Your task to perform on an android device: turn on improve location accuracy Image 0: 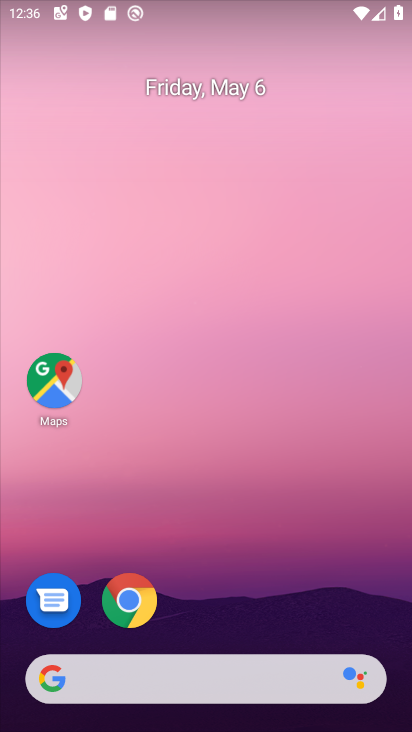
Step 0: drag from (346, 614) to (337, 298)
Your task to perform on an android device: turn on improve location accuracy Image 1: 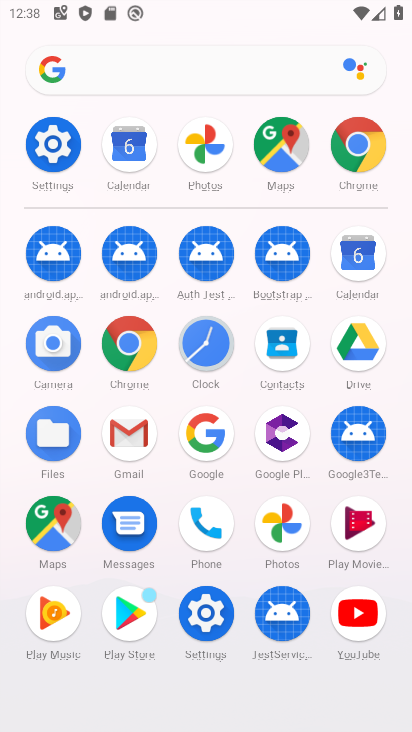
Step 1: click (42, 167)
Your task to perform on an android device: turn on improve location accuracy Image 2: 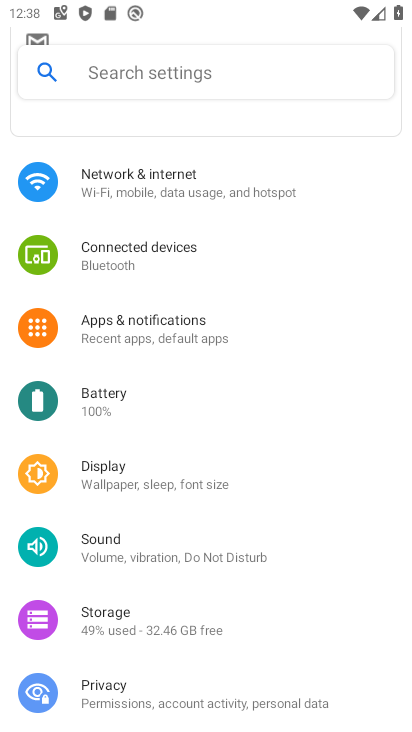
Step 2: drag from (117, 643) to (166, 276)
Your task to perform on an android device: turn on improve location accuracy Image 3: 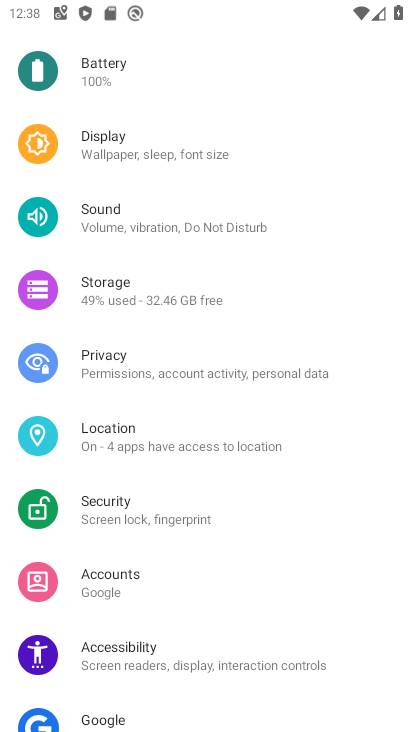
Step 3: click (140, 444)
Your task to perform on an android device: turn on improve location accuracy Image 4: 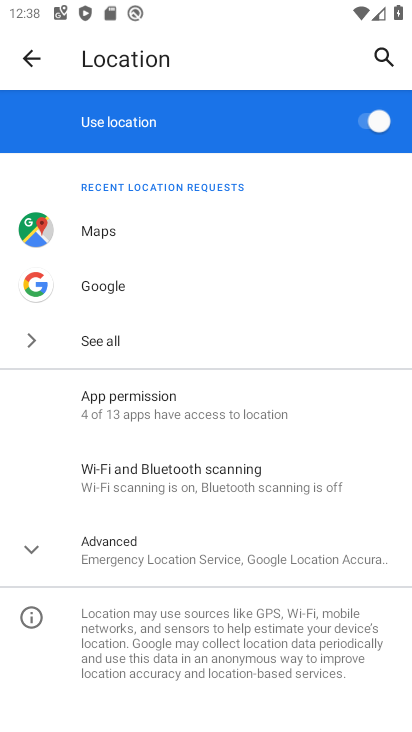
Step 4: click (88, 532)
Your task to perform on an android device: turn on improve location accuracy Image 5: 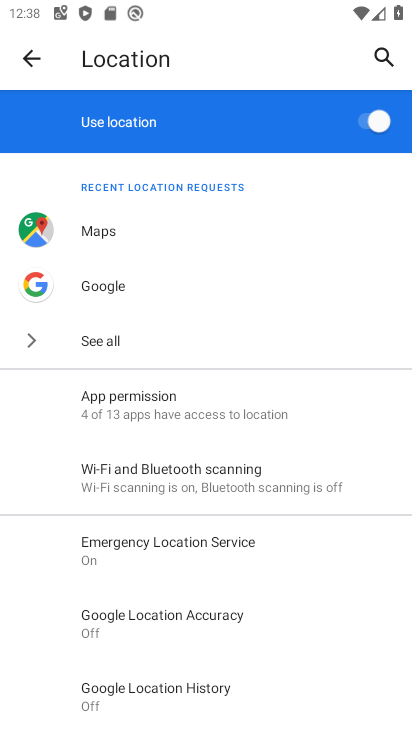
Step 5: click (208, 631)
Your task to perform on an android device: turn on improve location accuracy Image 6: 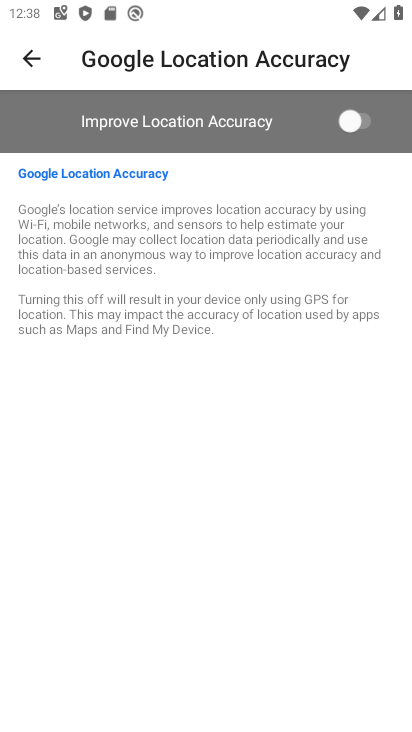
Step 6: click (344, 140)
Your task to perform on an android device: turn on improve location accuracy Image 7: 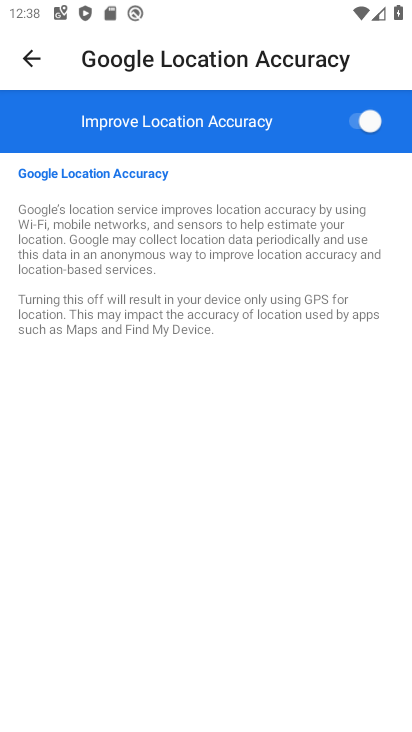
Step 7: task complete